Your task to perform on an android device: Open eBay Image 0: 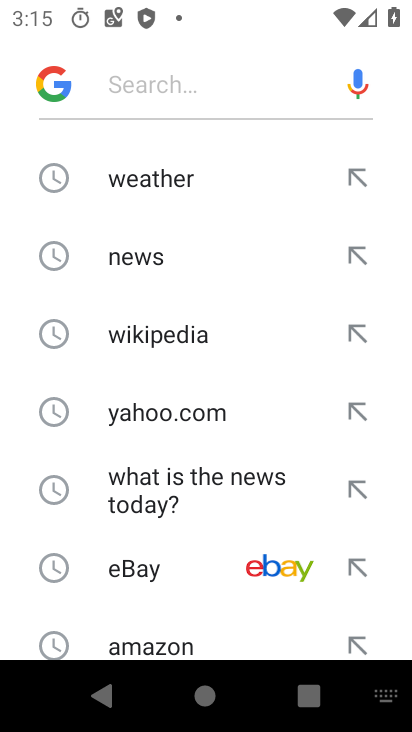
Step 0: click (126, 570)
Your task to perform on an android device: Open eBay Image 1: 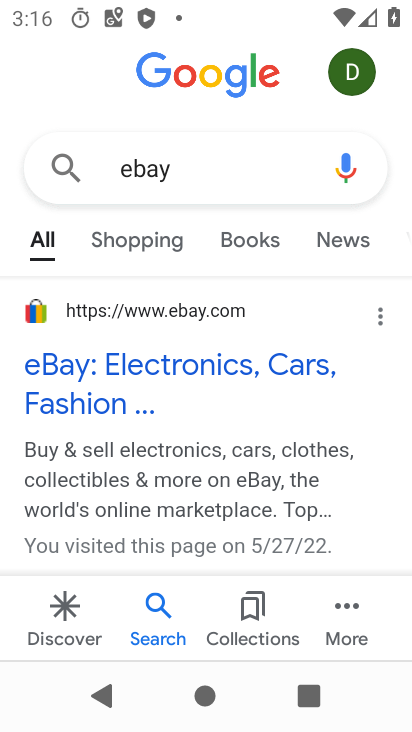
Step 1: click (68, 384)
Your task to perform on an android device: Open eBay Image 2: 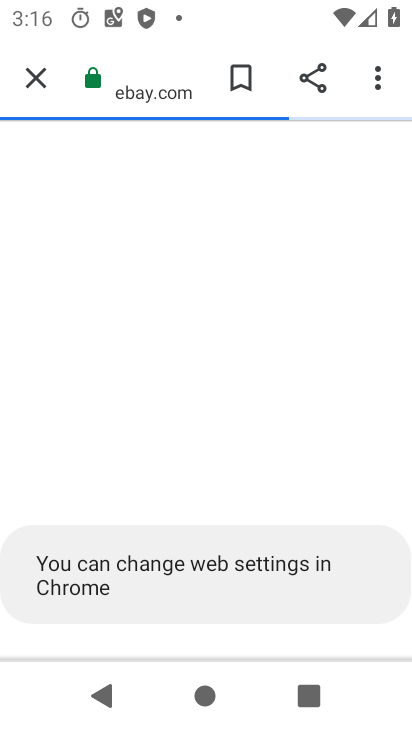
Step 2: task complete